Your task to perform on an android device: Open Reddit.com Image 0: 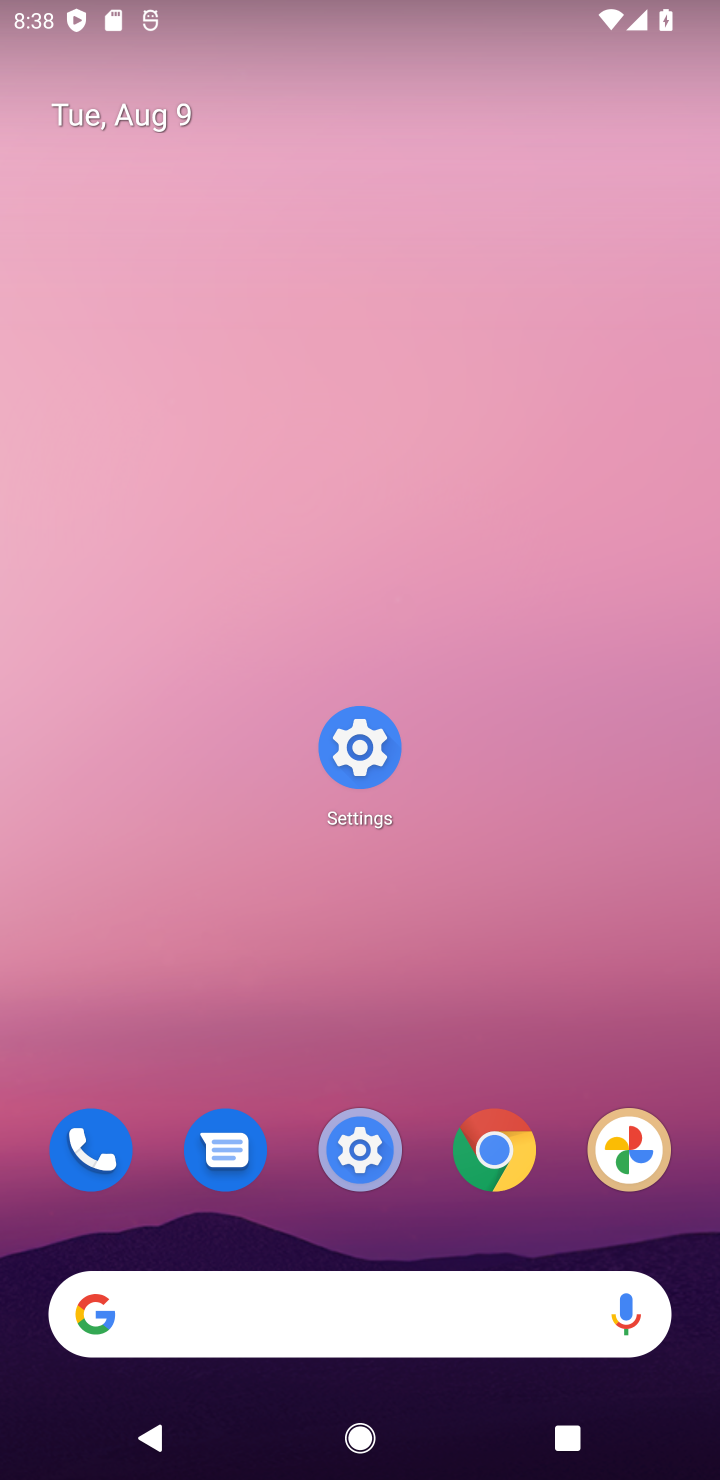
Step 0: click (495, 1128)
Your task to perform on an android device: Open Reddit.com Image 1: 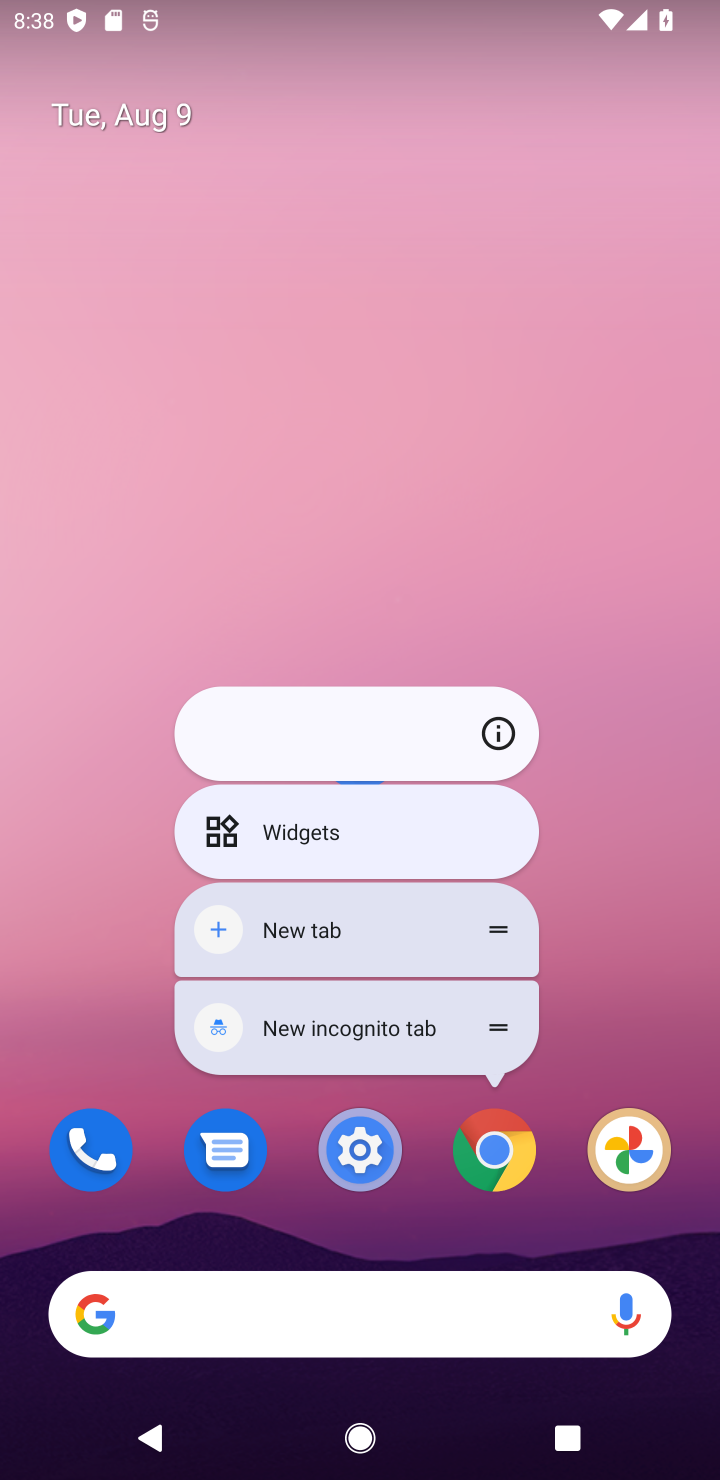
Step 1: click (495, 1137)
Your task to perform on an android device: Open Reddit.com Image 2: 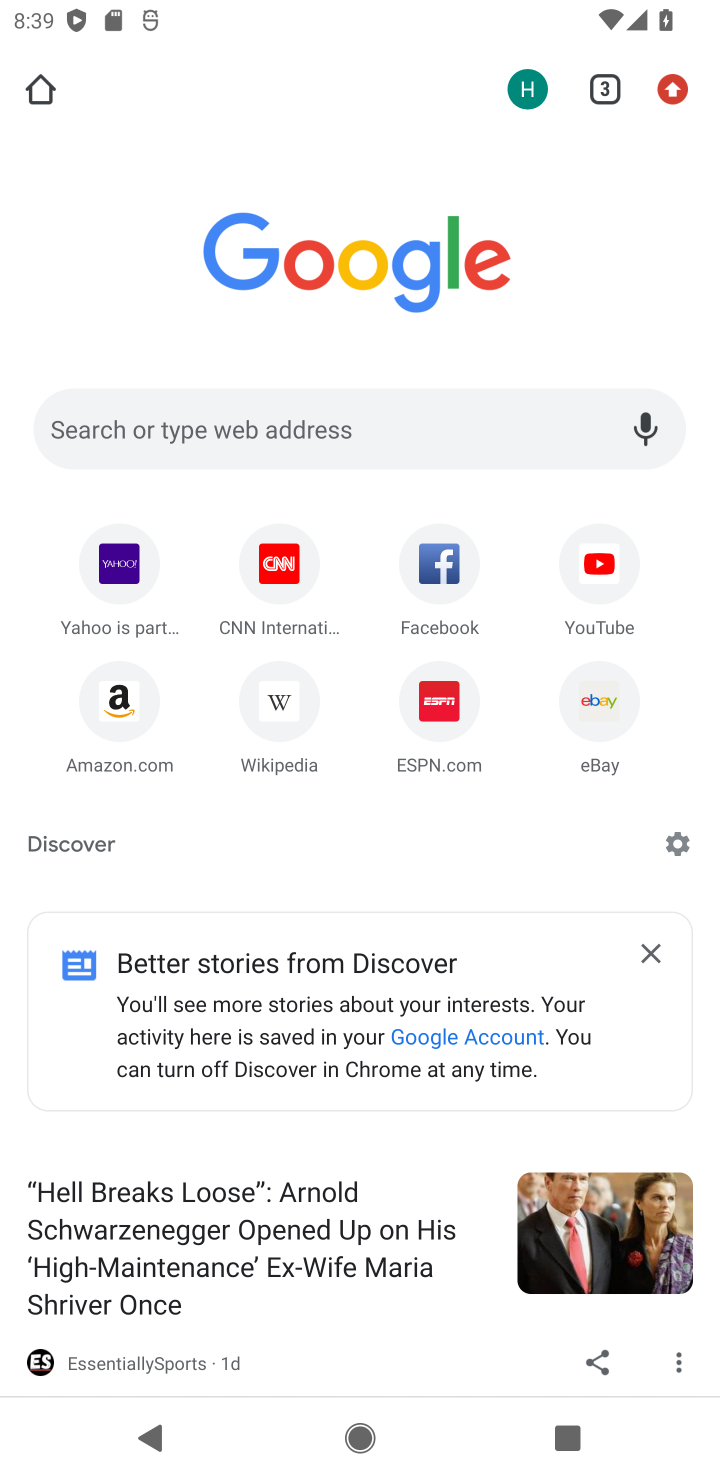
Step 2: click (244, 416)
Your task to perform on an android device: Open Reddit.com Image 3: 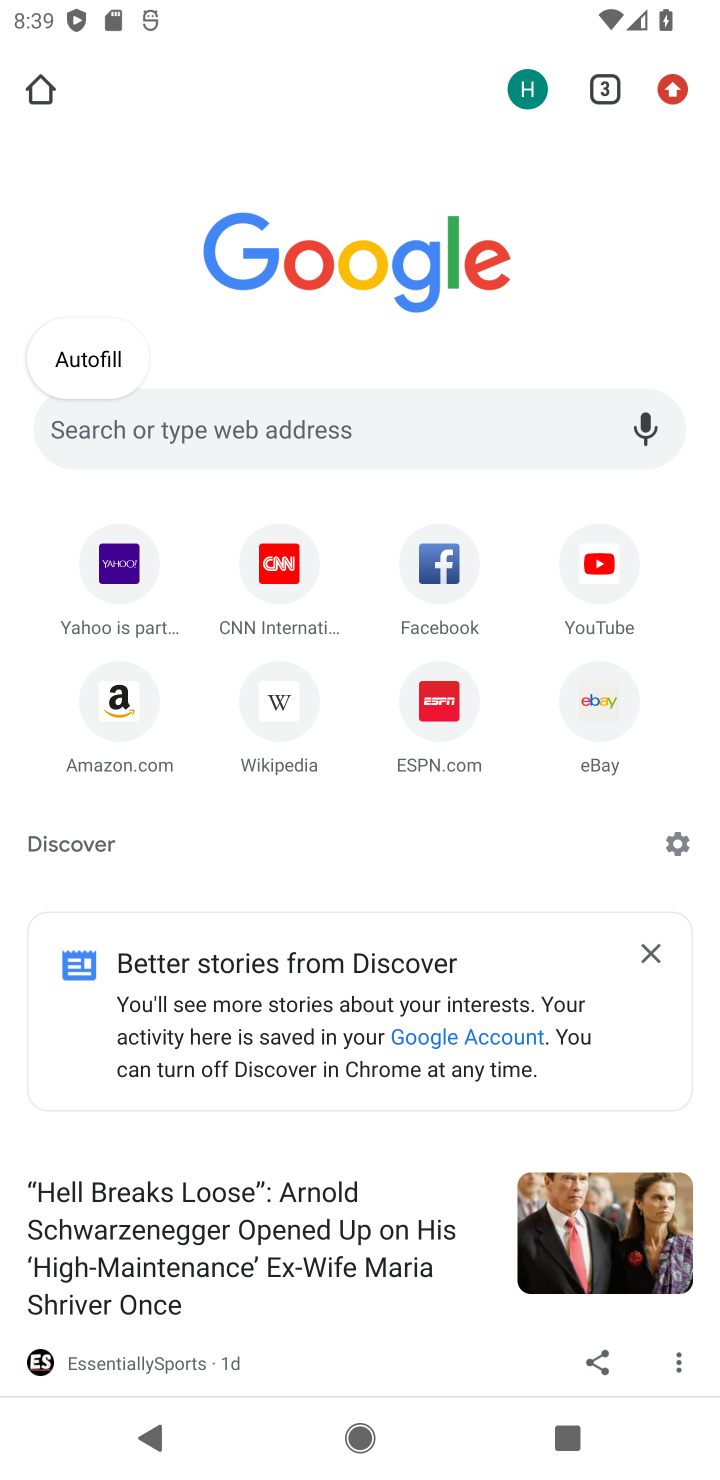
Step 3: type "Reddit.com"
Your task to perform on an android device: Open Reddit.com Image 4: 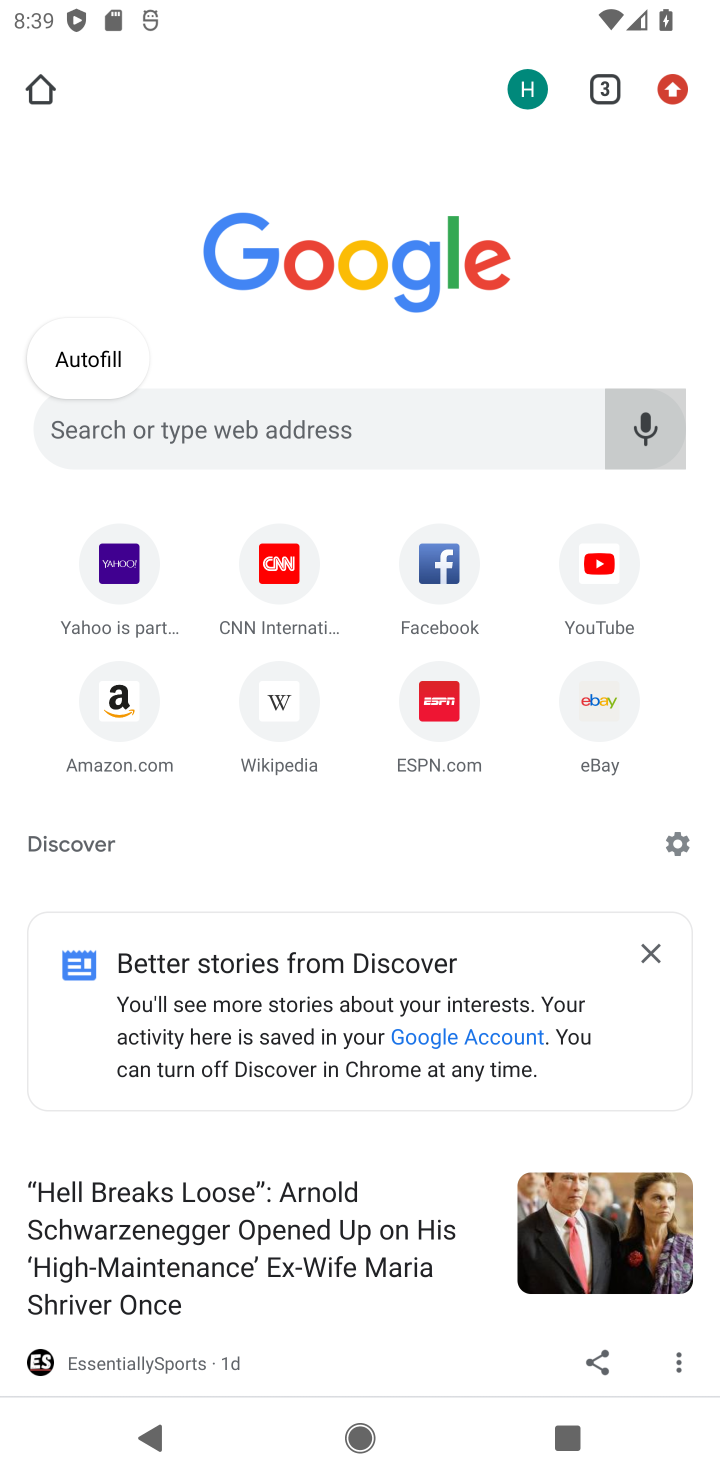
Step 4: click (118, 408)
Your task to perform on an android device: Open Reddit.com Image 5: 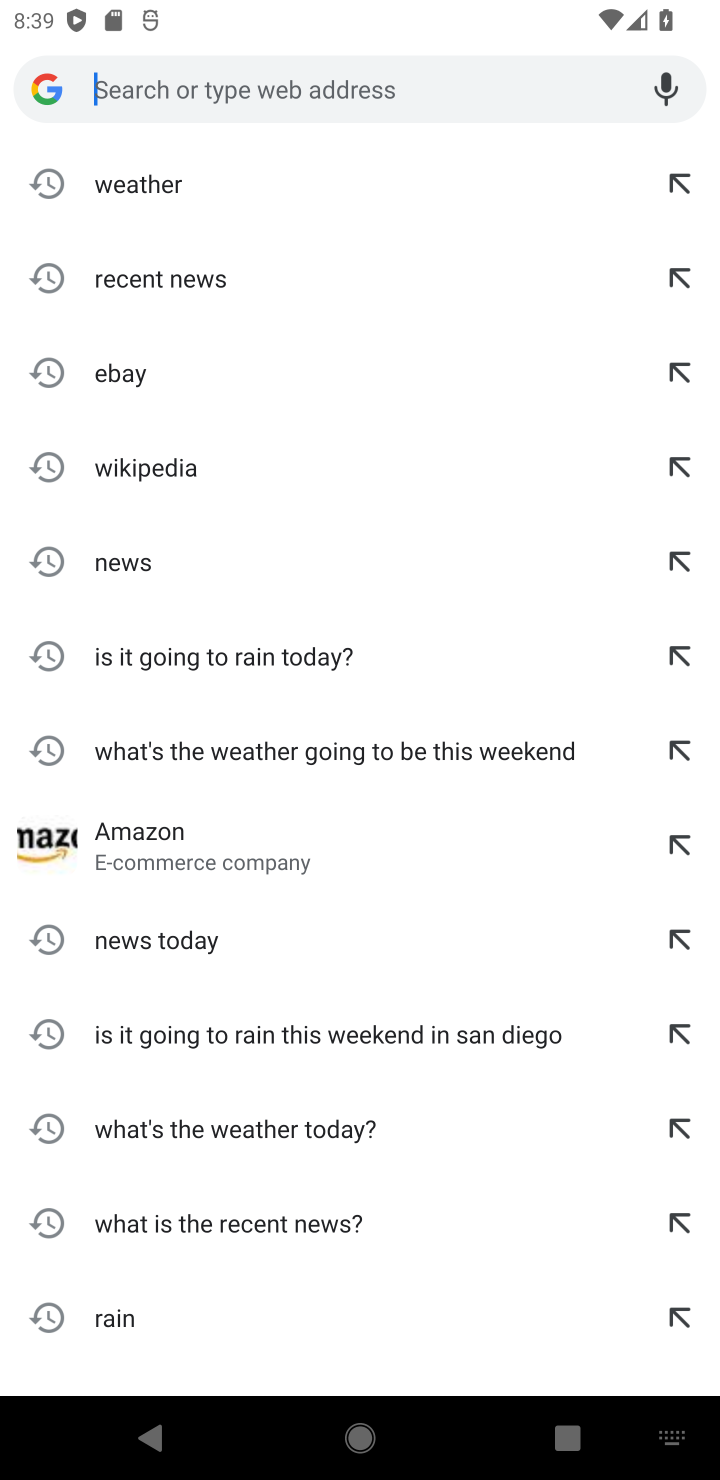
Step 5: type " Reddit.com"
Your task to perform on an android device: Open Reddit.com Image 6: 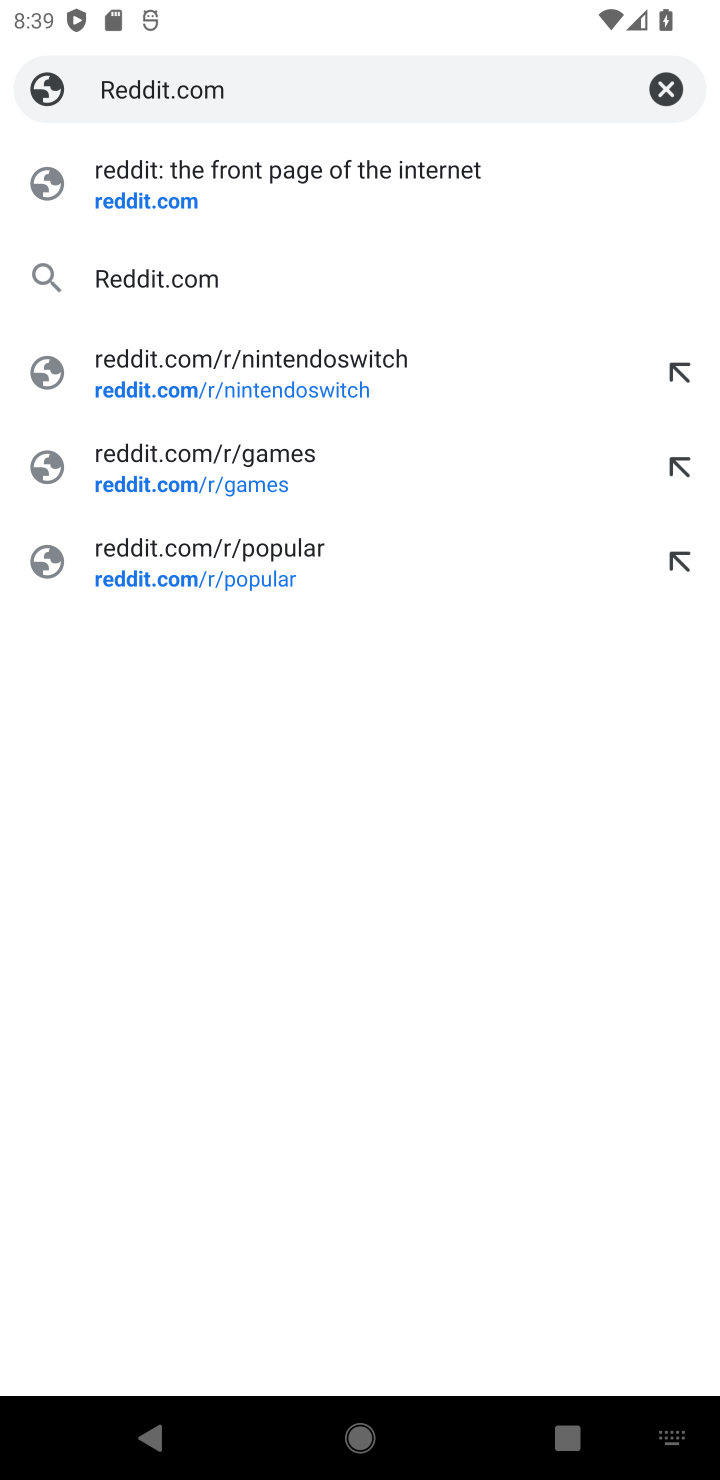
Step 6: click (293, 184)
Your task to perform on an android device: Open Reddit.com Image 7: 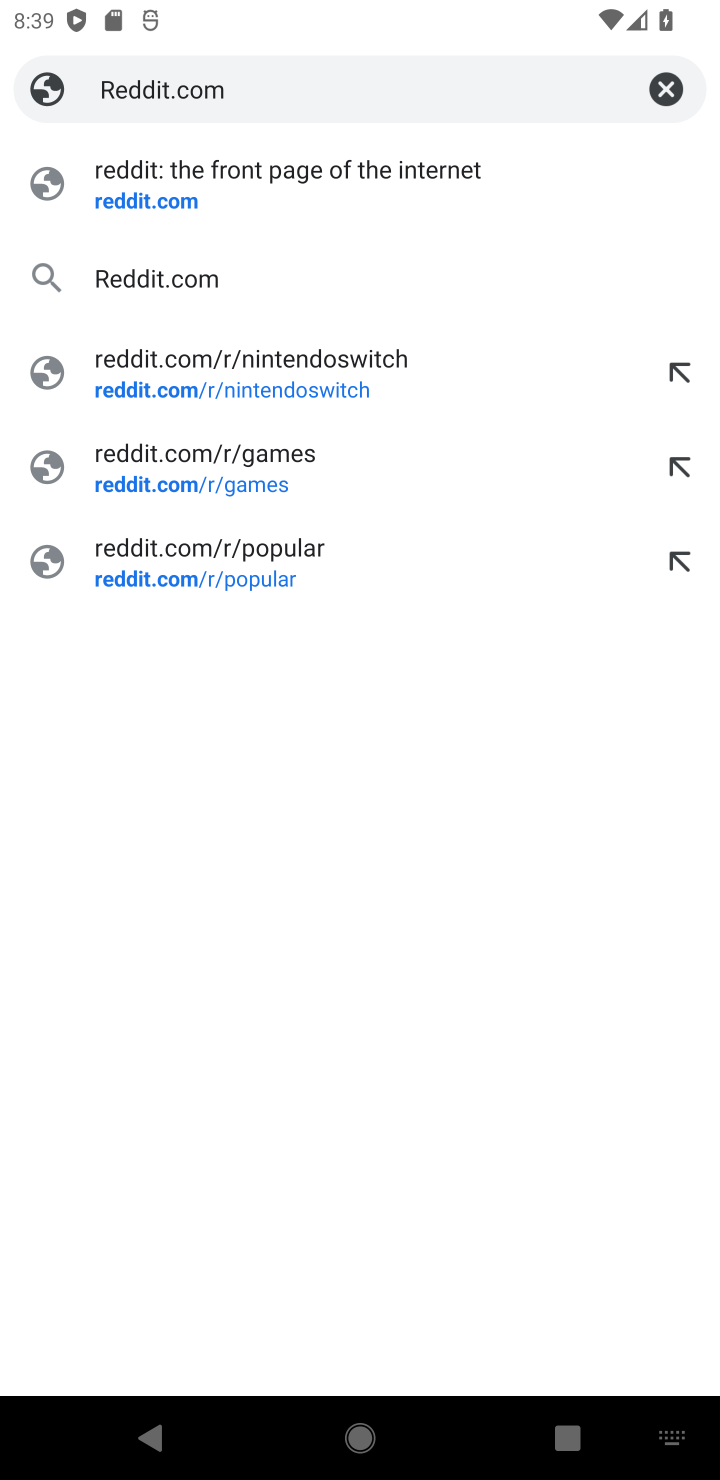
Step 7: click (239, 173)
Your task to perform on an android device: Open Reddit.com Image 8: 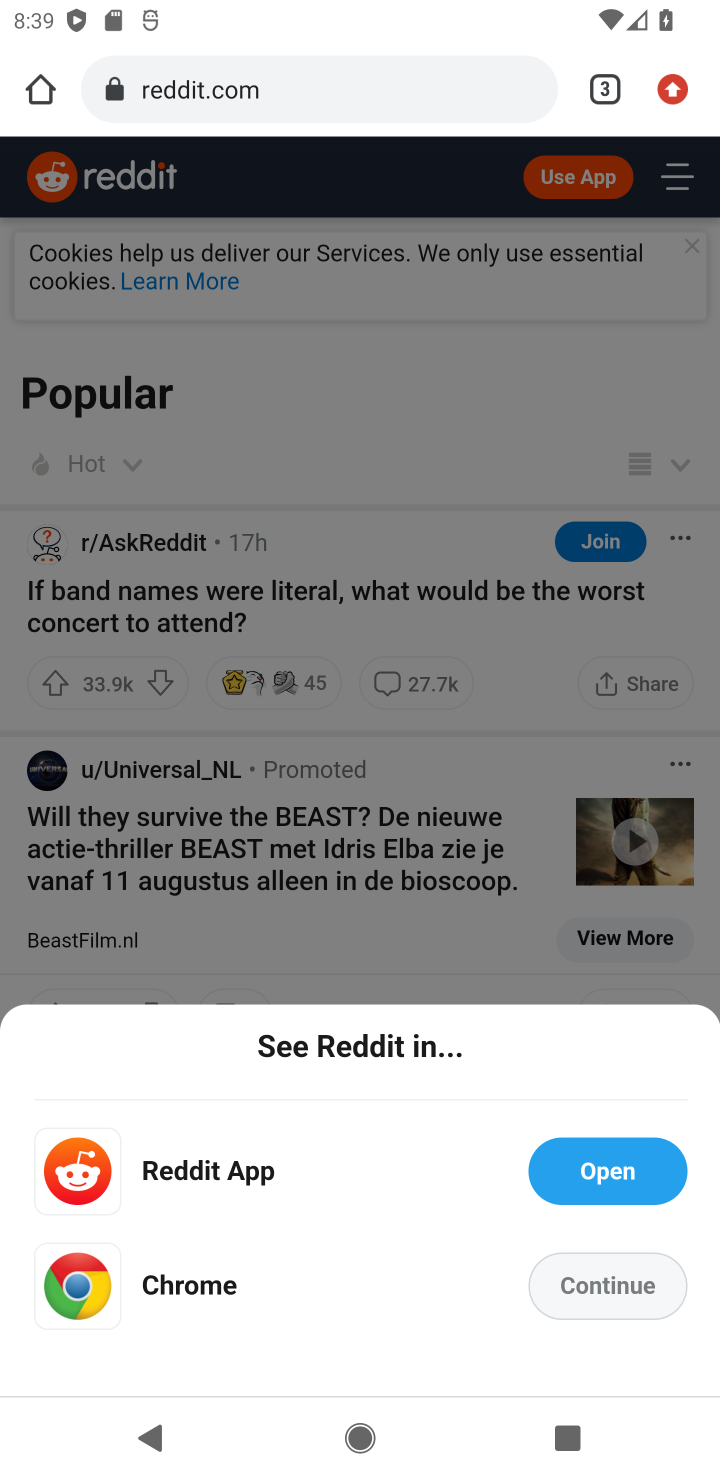
Step 8: task complete